Your task to perform on an android device: Go to Reddit.com Image 0: 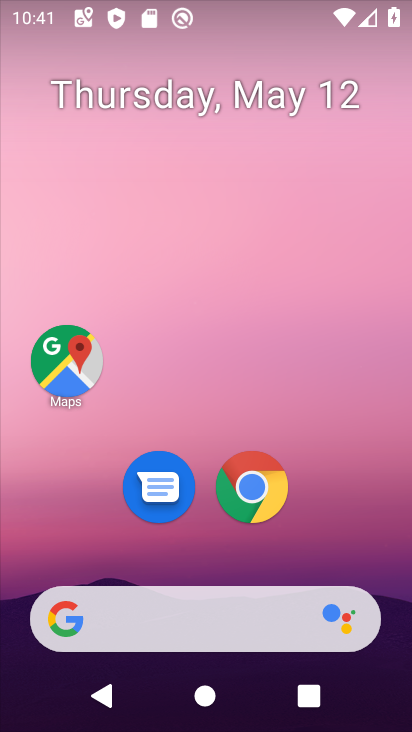
Step 0: click (250, 503)
Your task to perform on an android device: Go to Reddit.com Image 1: 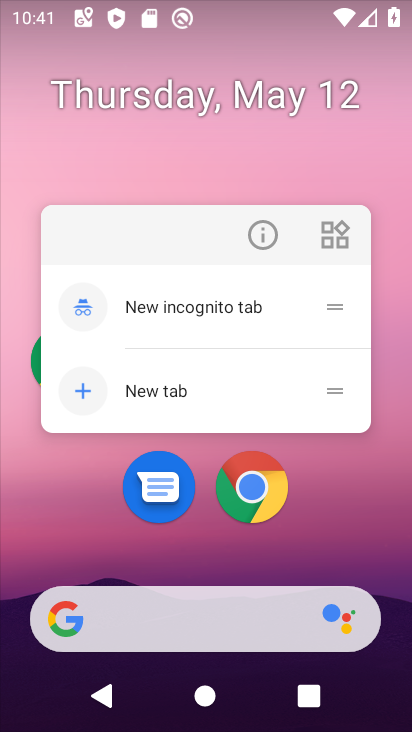
Step 1: click (251, 479)
Your task to perform on an android device: Go to Reddit.com Image 2: 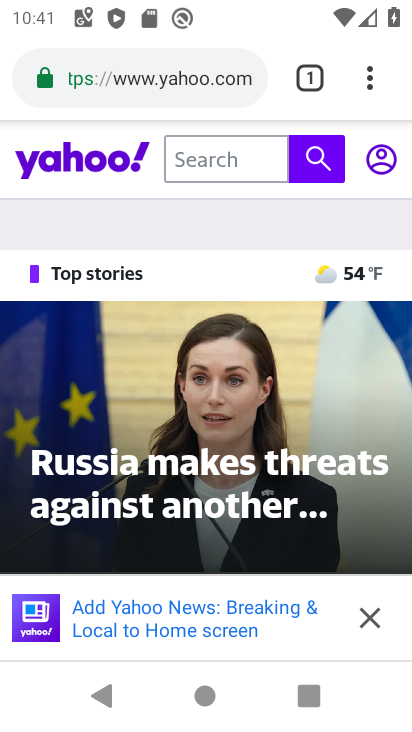
Step 2: click (209, 71)
Your task to perform on an android device: Go to Reddit.com Image 3: 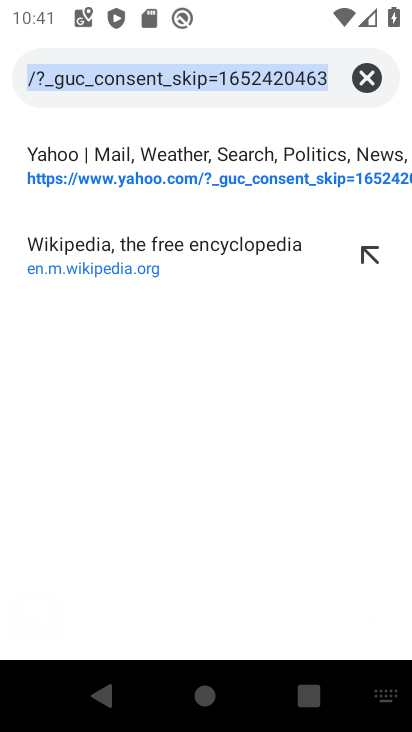
Step 3: click (372, 76)
Your task to perform on an android device: Go to Reddit.com Image 4: 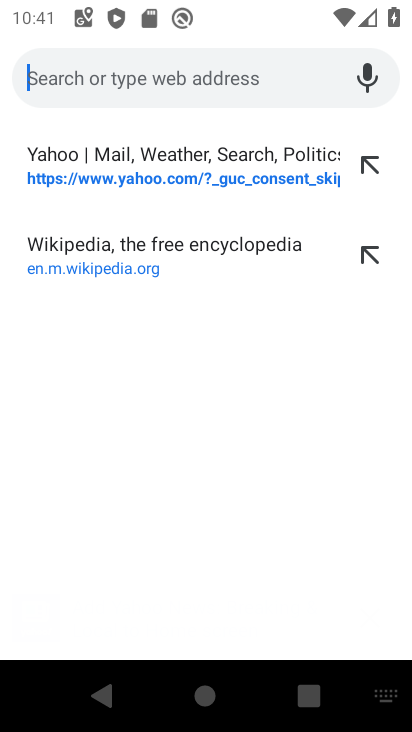
Step 4: type "Reddit.com"
Your task to perform on an android device: Go to Reddit.com Image 5: 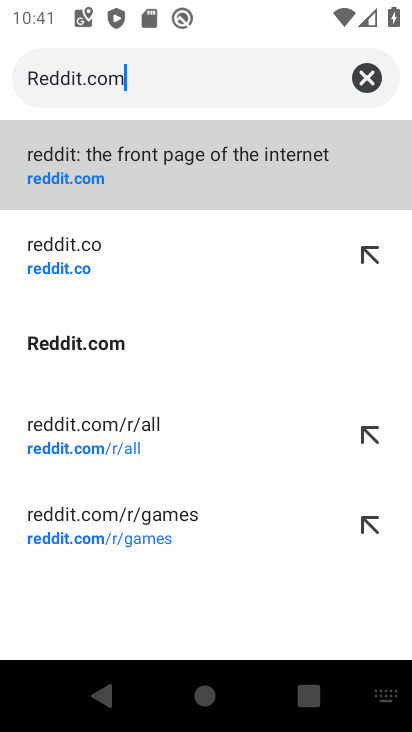
Step 5: type ""
Your task to perform on an android device: Go to Reddit.com Image 6: 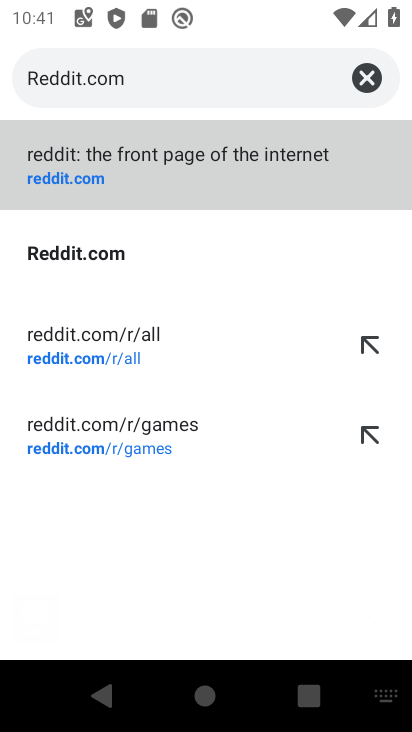
Step 6: click (159, 240)
Your task to perform on an android device: Go to Reddit.com Image 7: 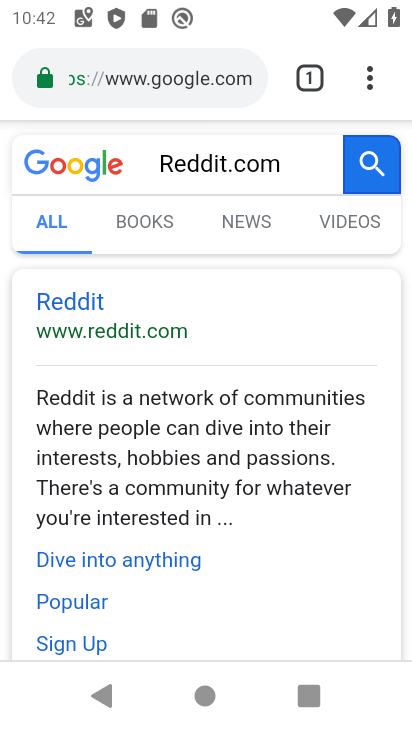
Step 7: click (66, 304)
Your task to perform on an android device: Go to Reddit.com Image 8: 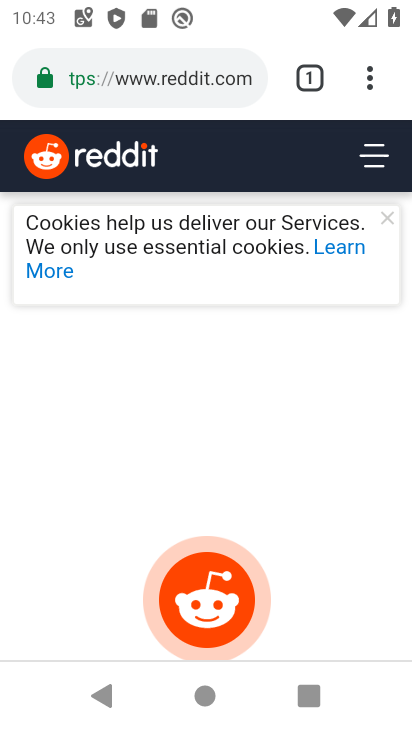
Step 8: task complete